Your task to perform on an android device: Search for macbook pro on newegg, select the first entry, add it to the cart, then select checkout. Image 0: 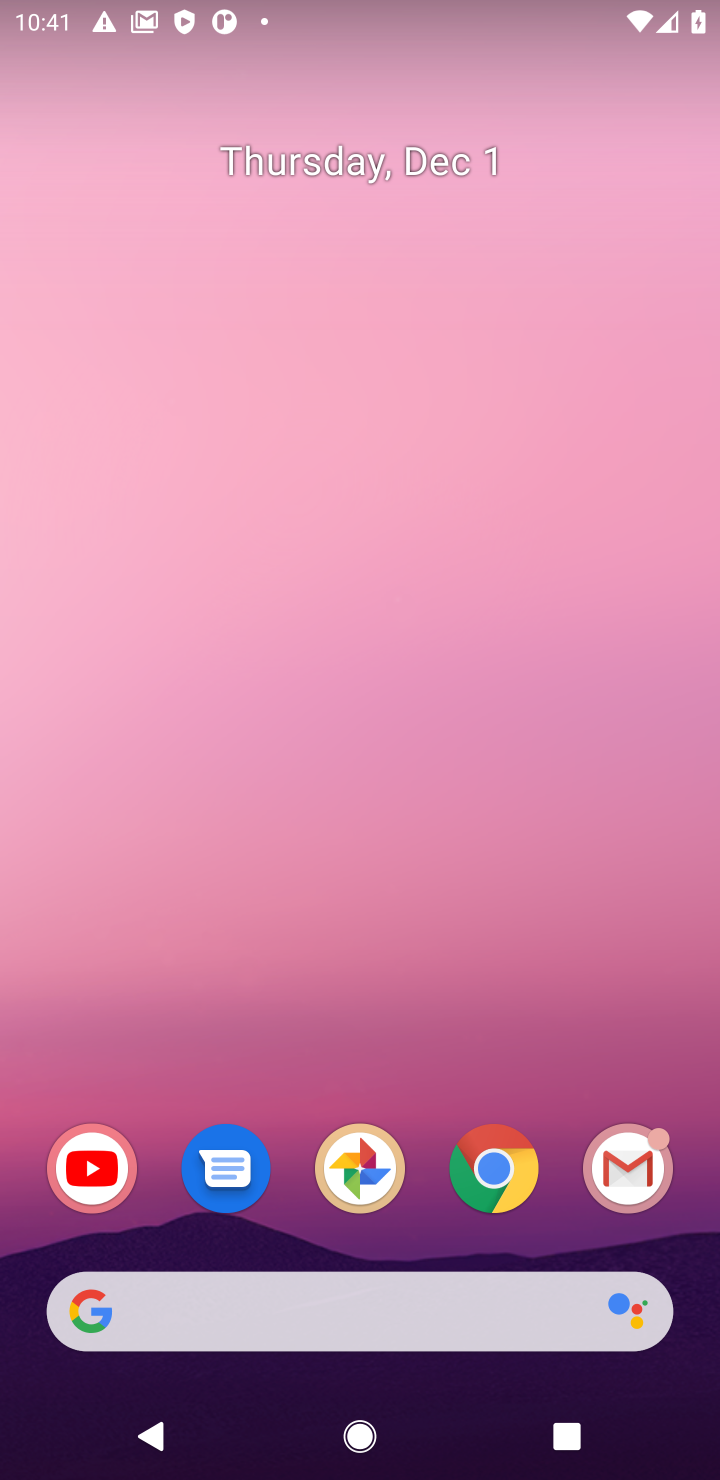
Step 0: click (498, 1170)
Your task to perform on an android device: Search for macbook pro on newegg, select the first entry, add it to the cart, then select checkout. Image 1: 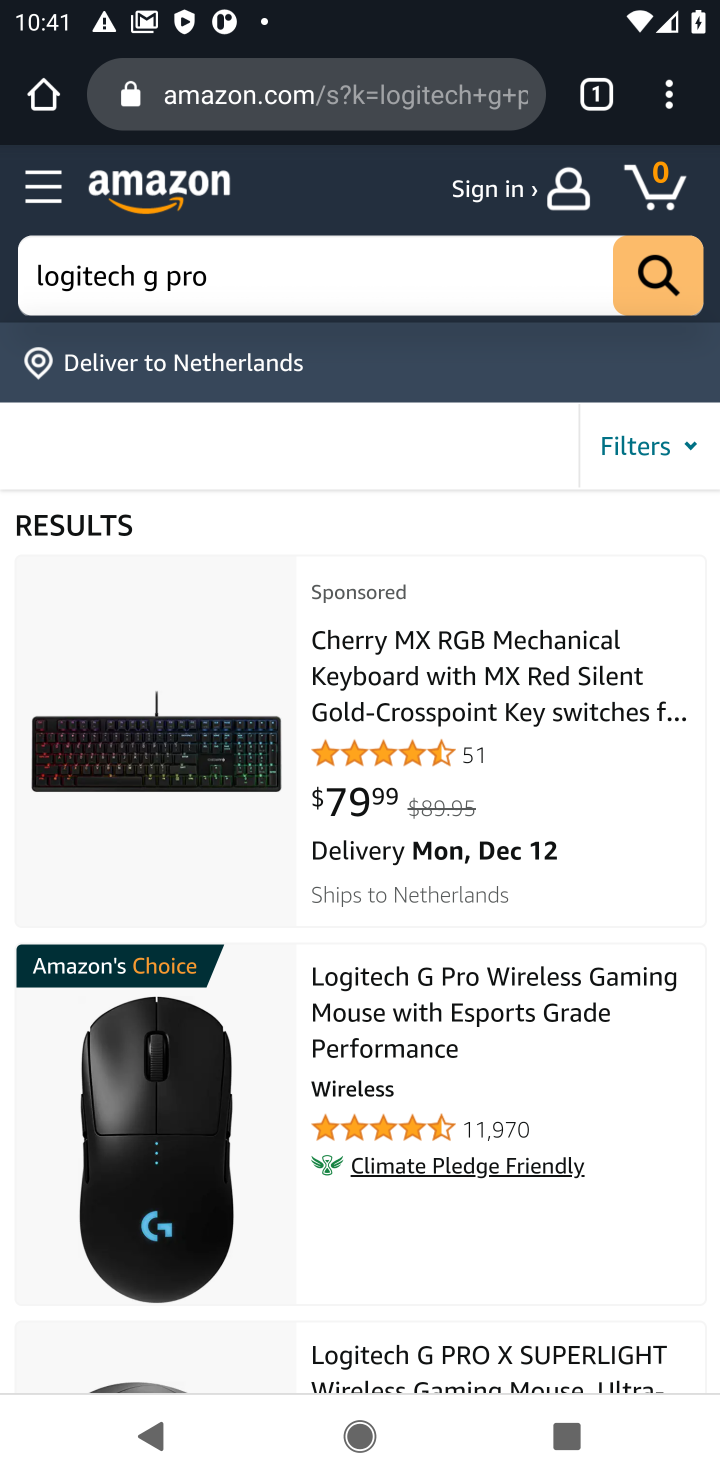
Step 1: click (265, 111)
Your task to perform on an android device: Search for macbook pro on newegg, select the first entry, add it to the cart, then select checkout. Image 2: 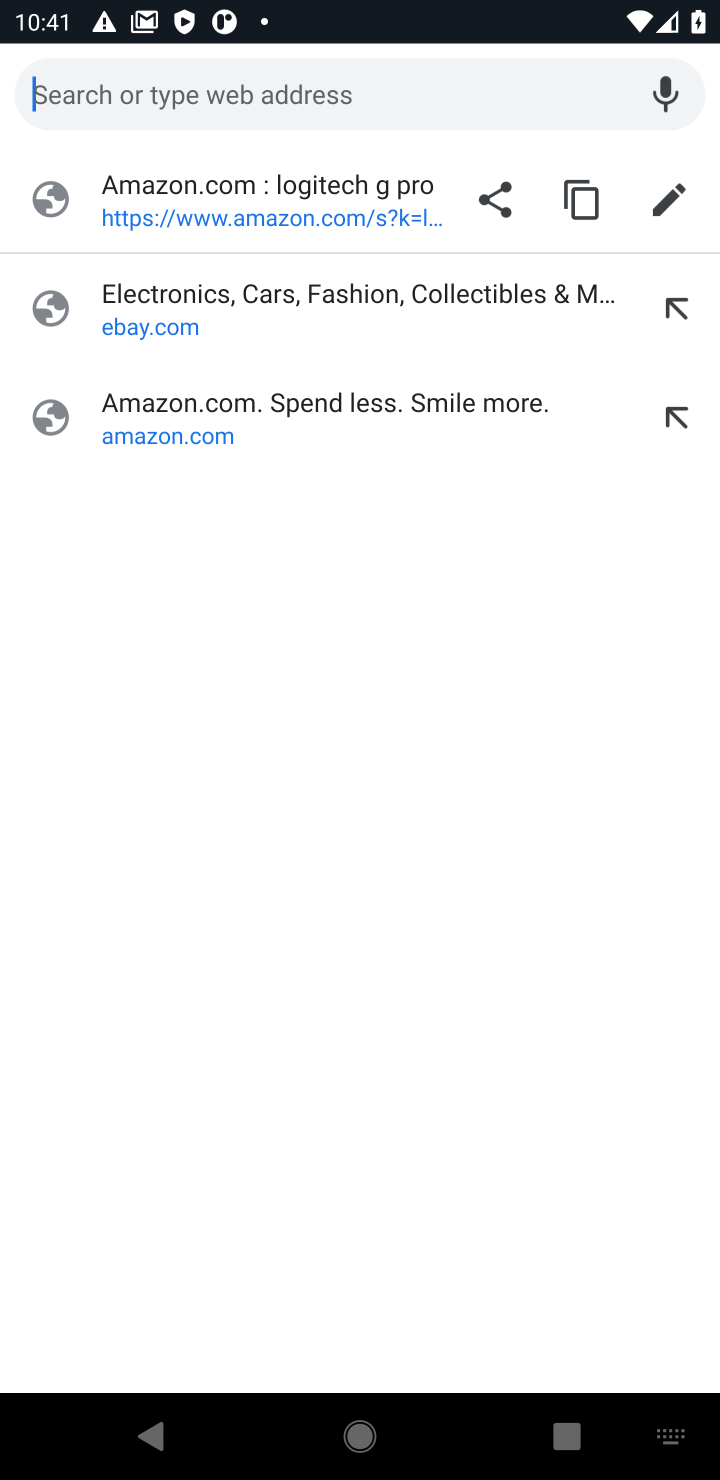
Step 2: type "newegg.com"
Your task to perform on an android device: Search for macbook pro on newegg, select the first entry, add it to the cart, then select checkout. Image 3: 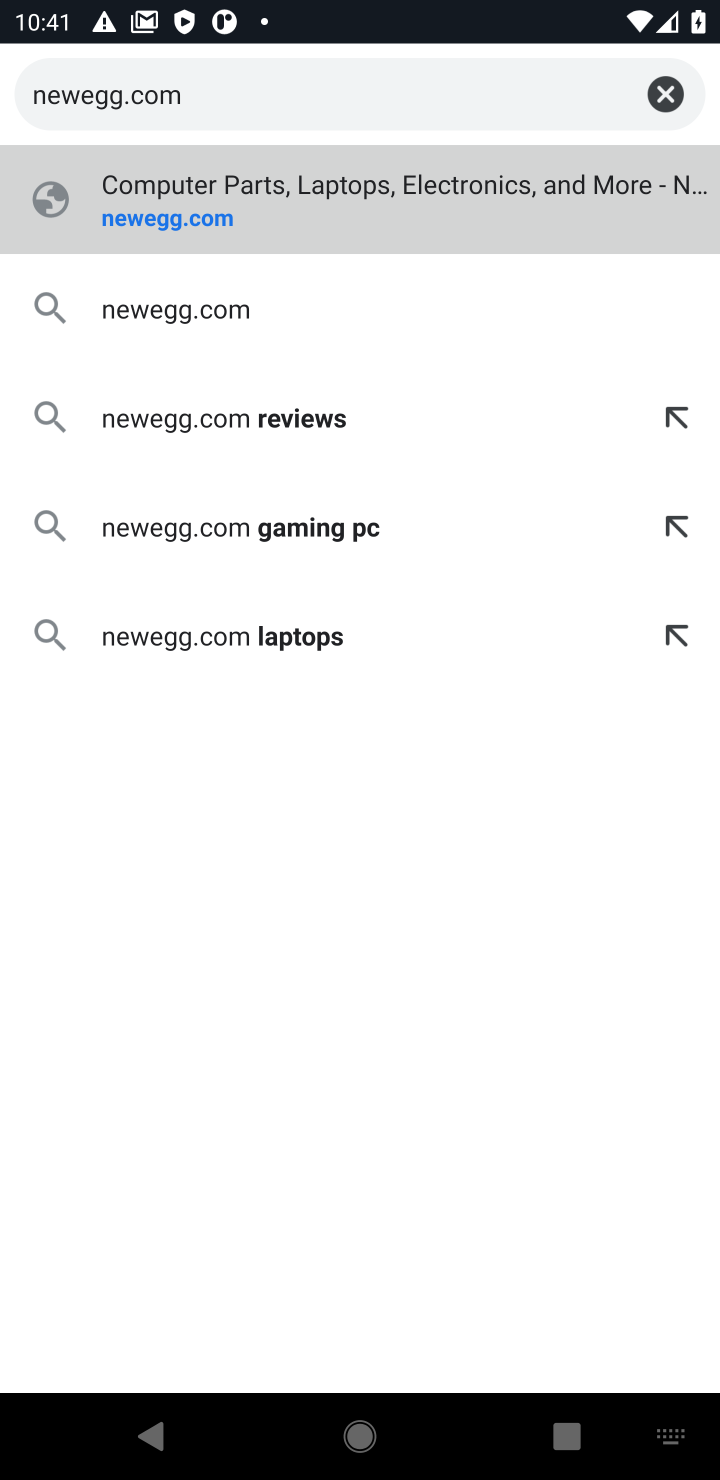
Step 3: click (145, 215)
Your task to perform on an android device: Search for macbook pro on newegg, select the first entry, add it to the cart, then select checkout. Image 4: 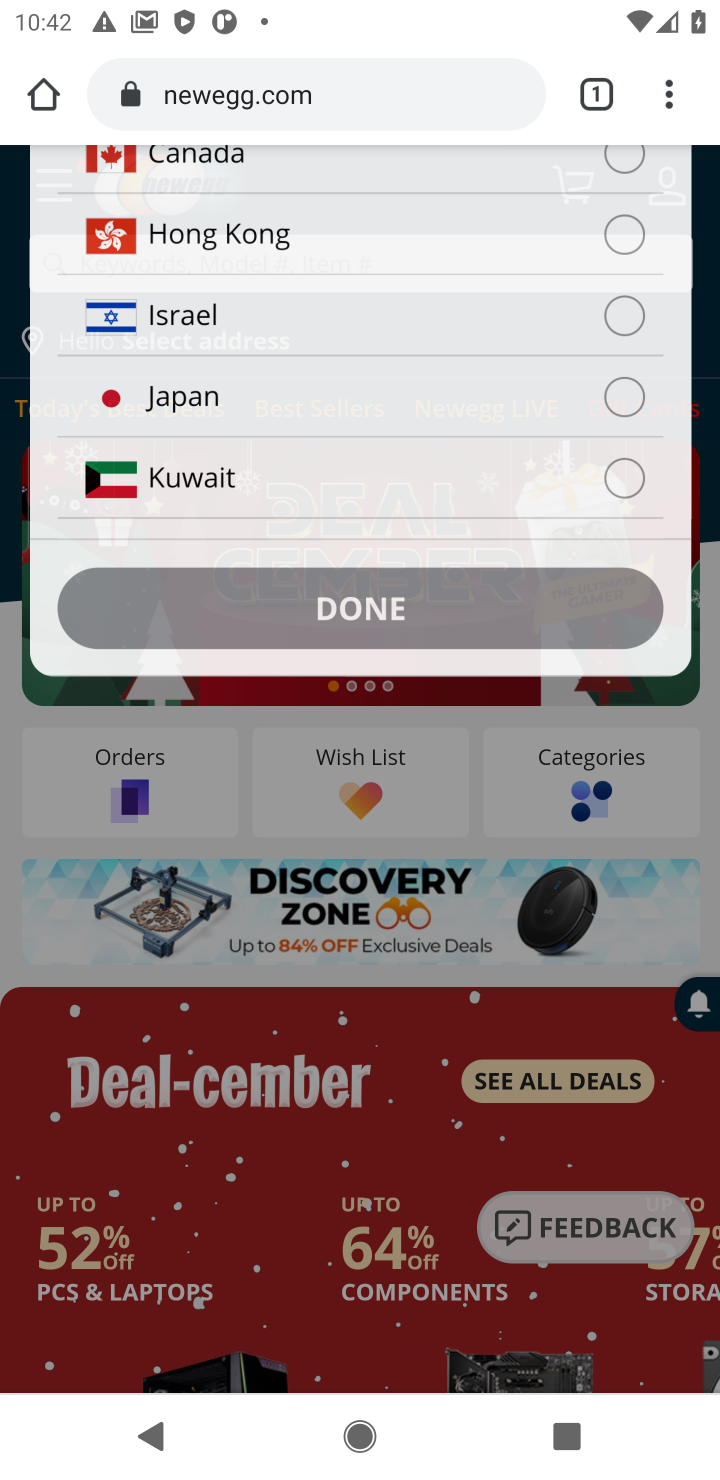
Step 4: click (162, 276)
Your task to perform on an android device: Search for macbook pro on newegg, select the first entry, add it to the cart, then select checkout. Image 5: 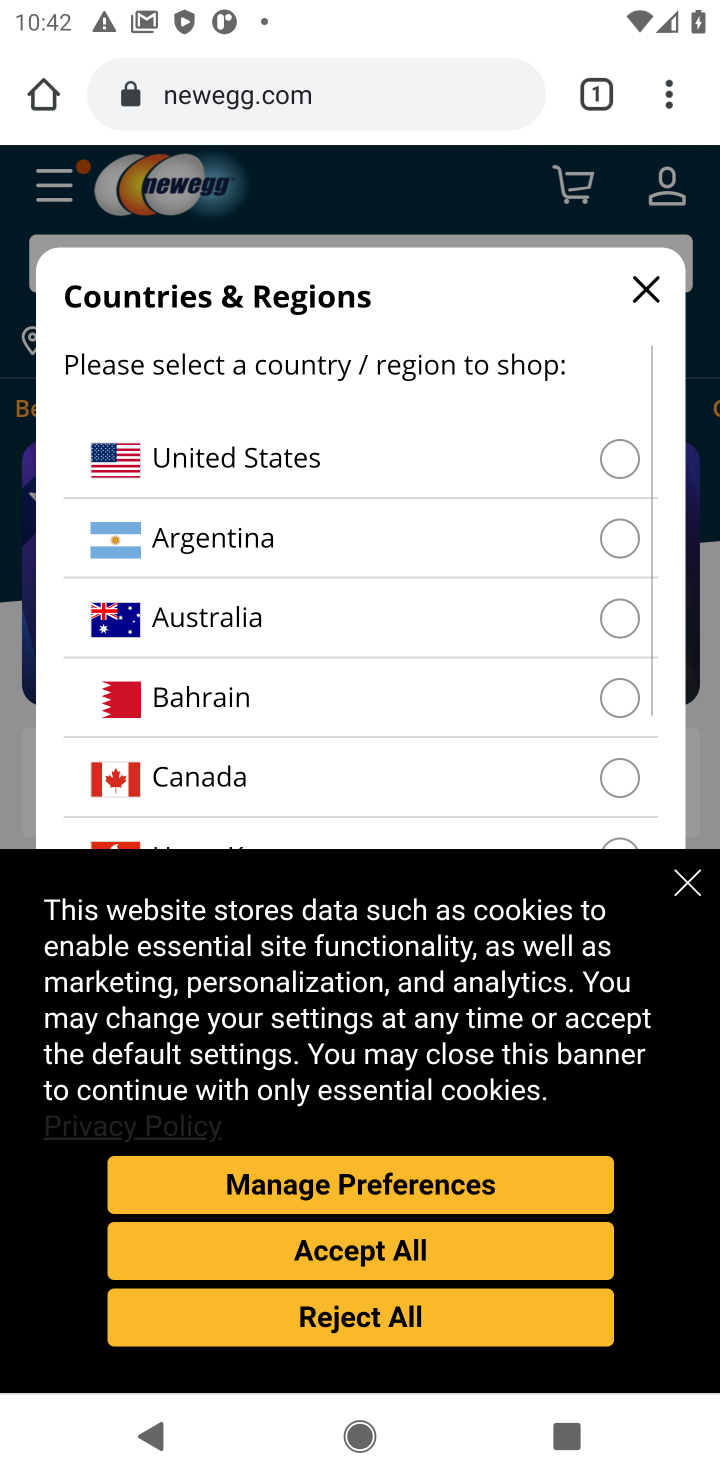
Step 5: click (161, 452)
Your task to perform on an android device: Search for macbook pro on newegg, select the first entry, add it to the cart, then select checkout. Image 6: 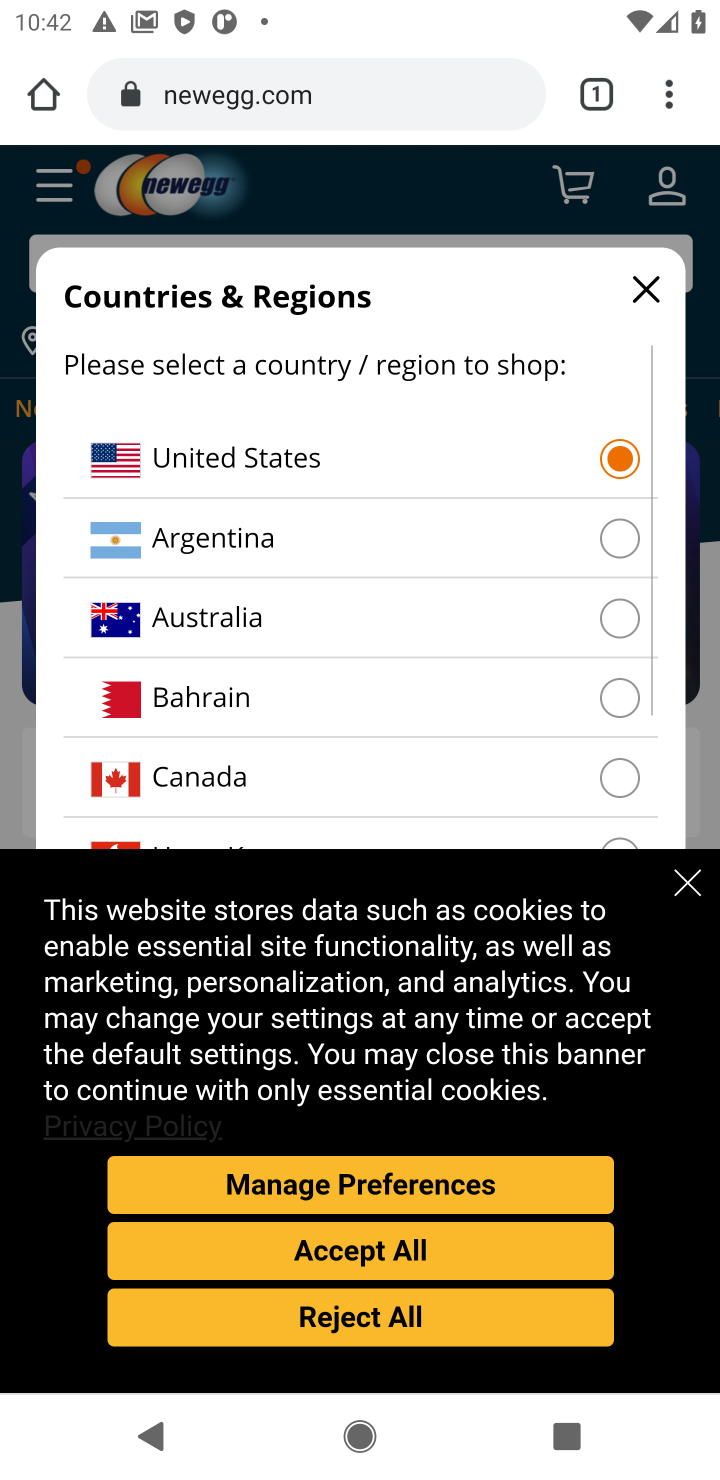
Step 6: click (684, 873)
Your task to perform on an android device: Search for macbook pro on newegg, select the first entry, add it to the cart, then select checkout. Image 7: 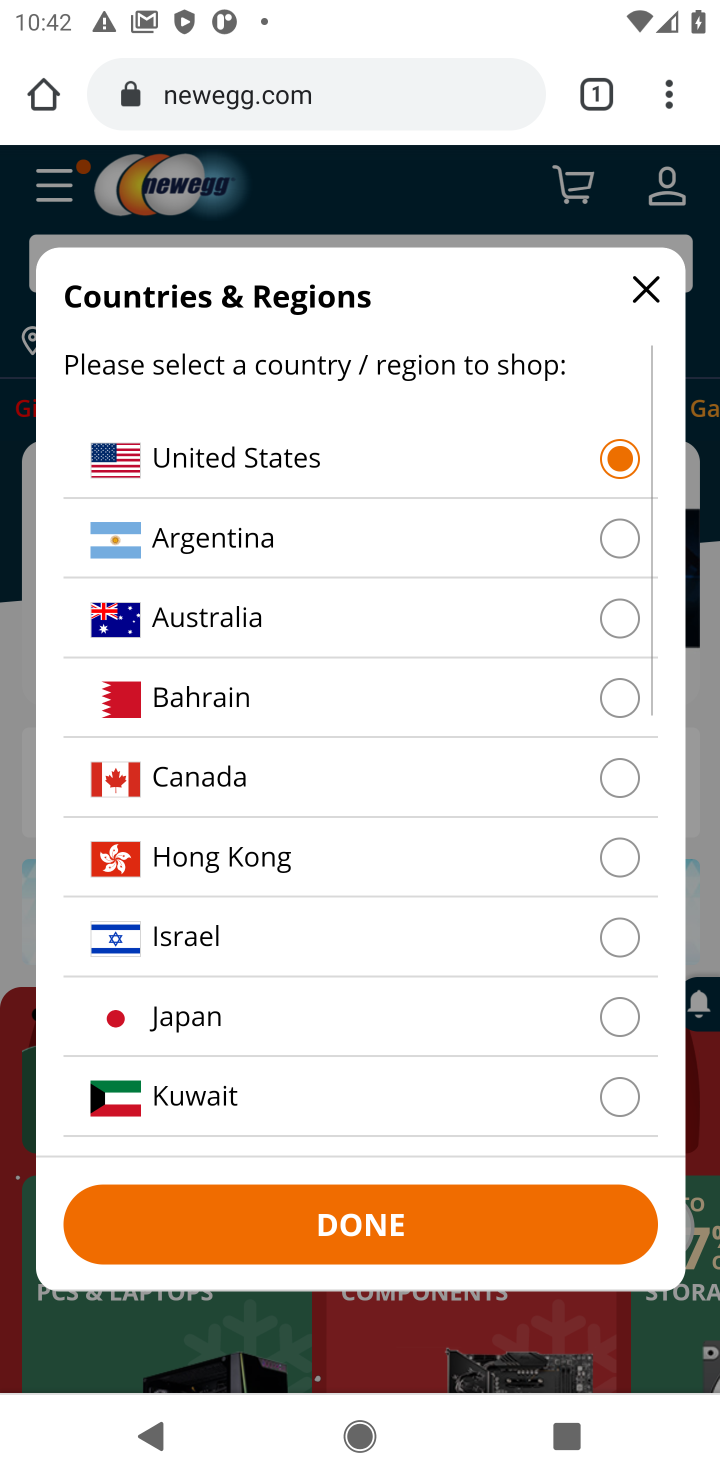
Step 7: click (361, 1209)
Your task to perform on an android device: Search for macbook pro on newegg, select the first entry, add it to the cart, then select checkout. Image 8: 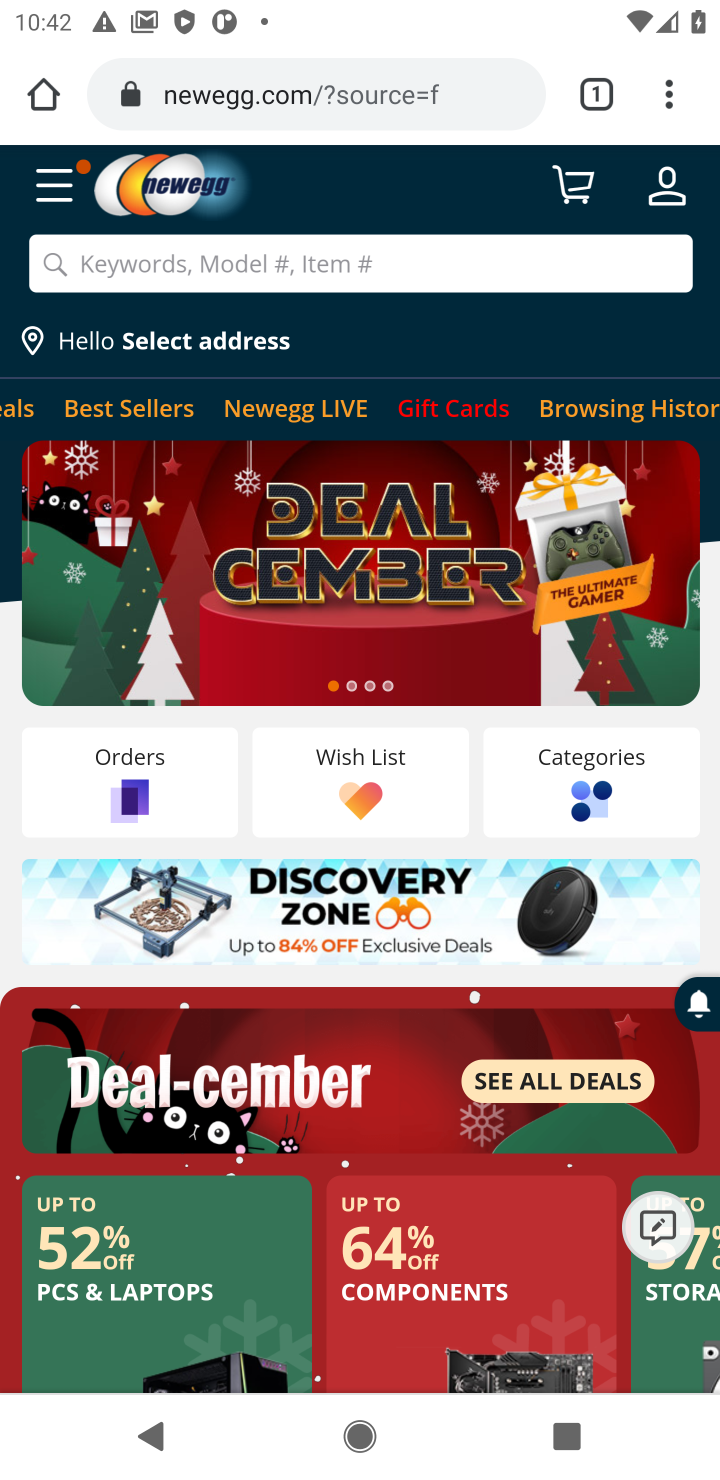
Step 8: click (225, 267)
Your task to perform on an android device: Search for macbook pro on newegg, select the first entry, add it to the cart, then select checkout. Image 9: 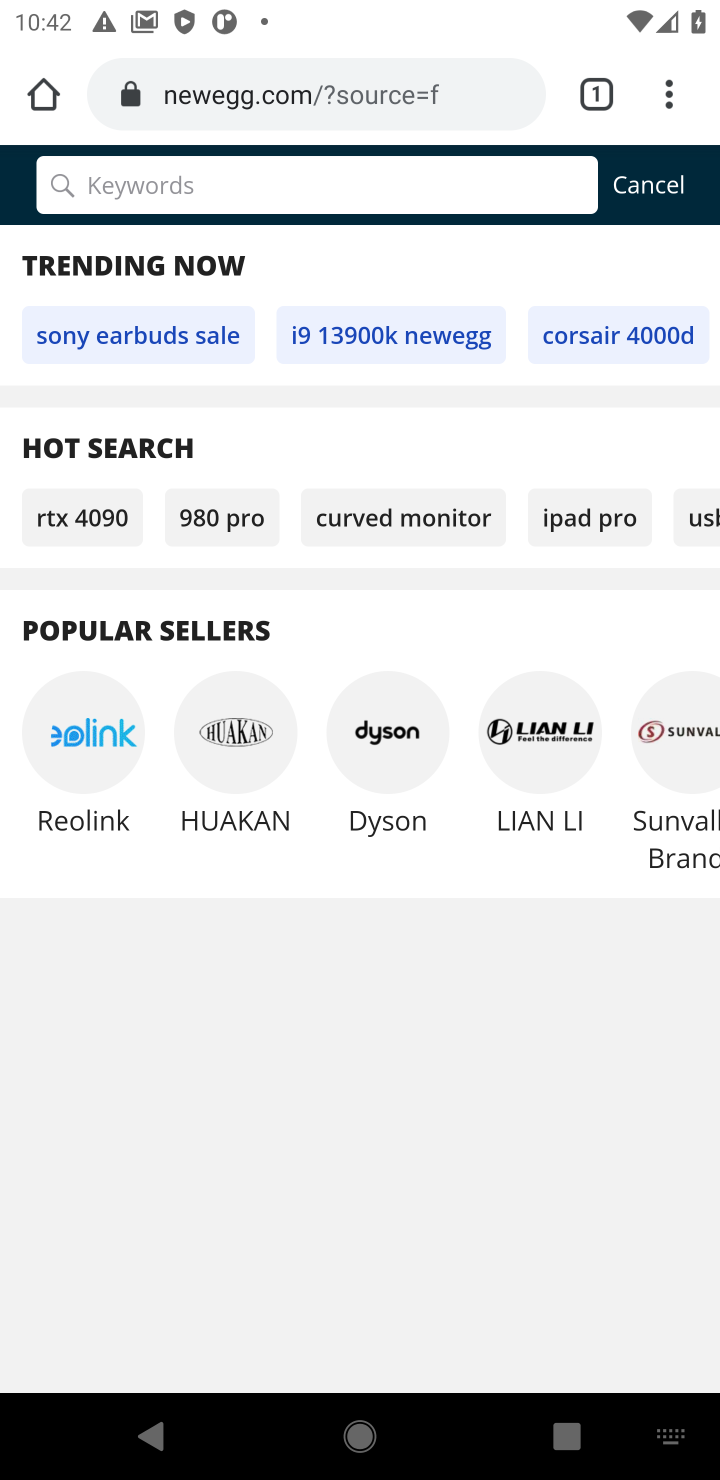
Step 9: type "macbook pro"
Your task to perform on an android device: Search for macbook pro on newegg, select the first entry, add it to the cart, then select checkout. Image 10: 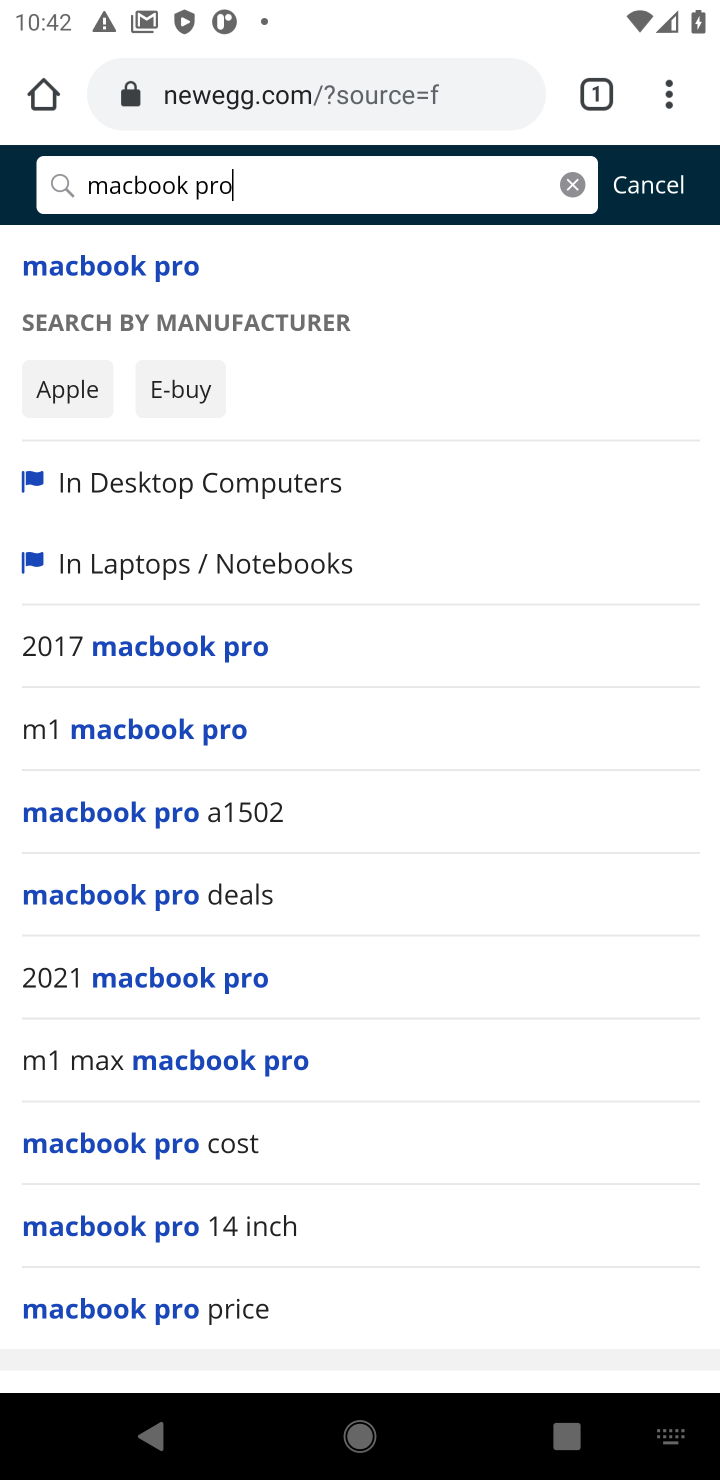
Step 10: click (162, 256)
Your task to perform on an android device: Search for macbook pro on newegg, select the first entry, add it to the cart, then select checkout. Image 11: 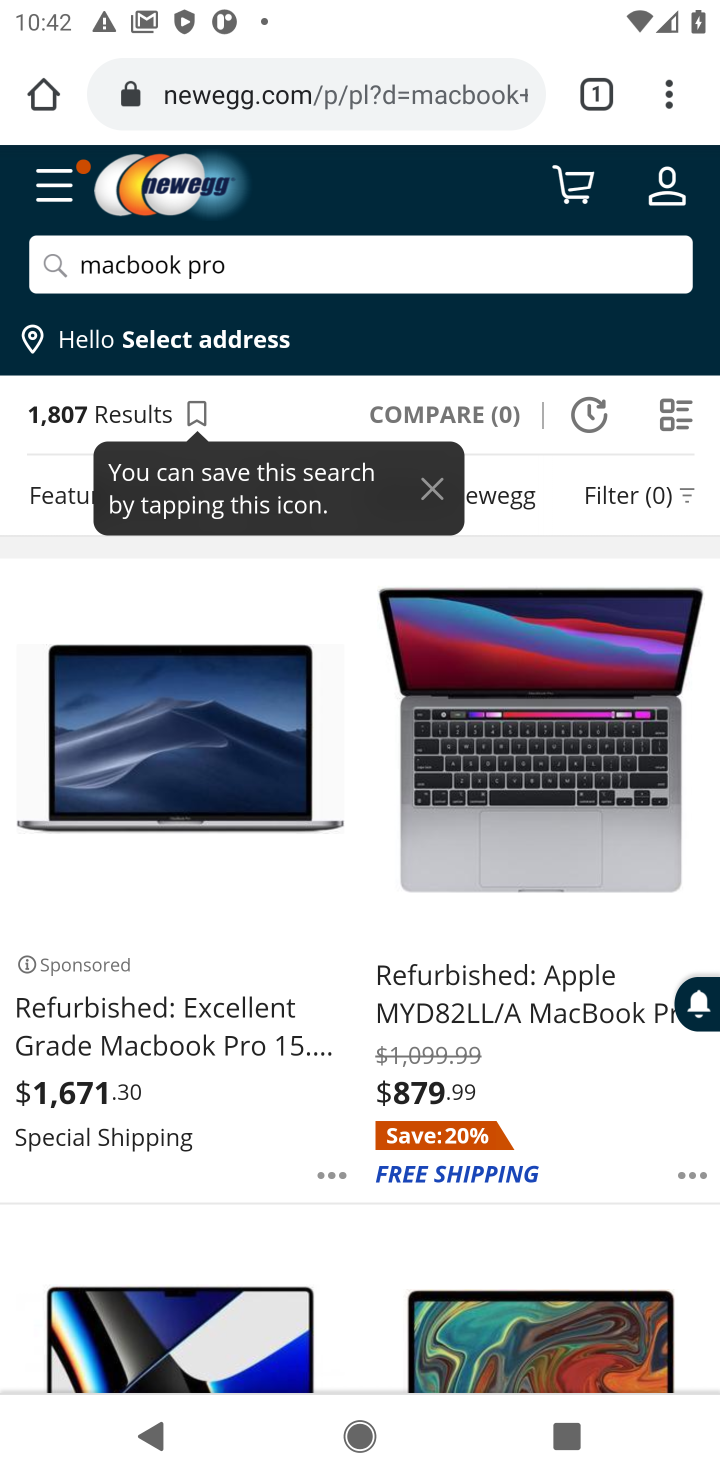
Step 11: click (113, 992)
Your task to perform on an android device: Search for macbook pro on newegg, select the first entry, add it to the cart, then select checkout. Image 12: 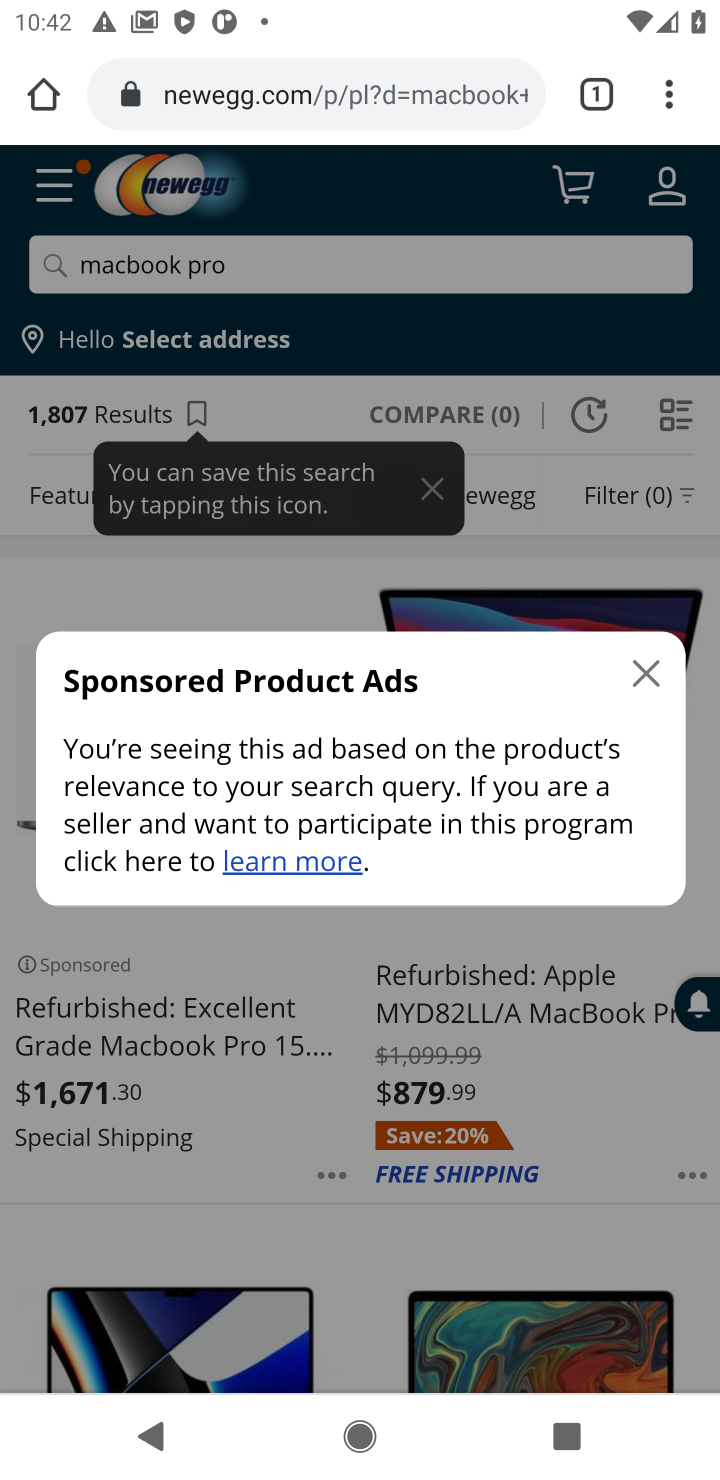
Step 12: click (638, 665)
Your task to perform on an android device: Search for macbook pro on newegg, select the first entry, add it to the cart, then select checkout. Image 13: 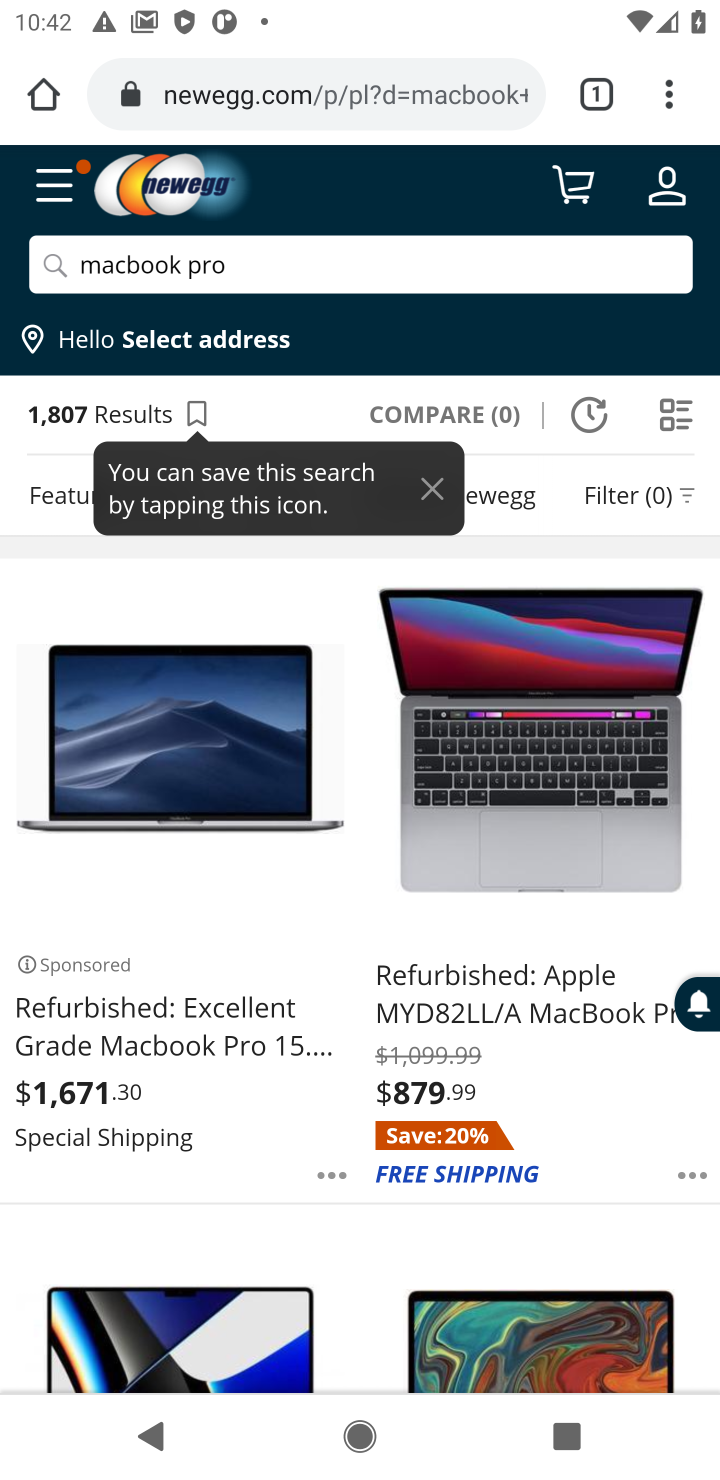
Step 13: click (168, 1004)
Your task to perform on an android device: Search for macbook pro on newegg, select the first entry, add it to the cart, then select checkout. Image 14: 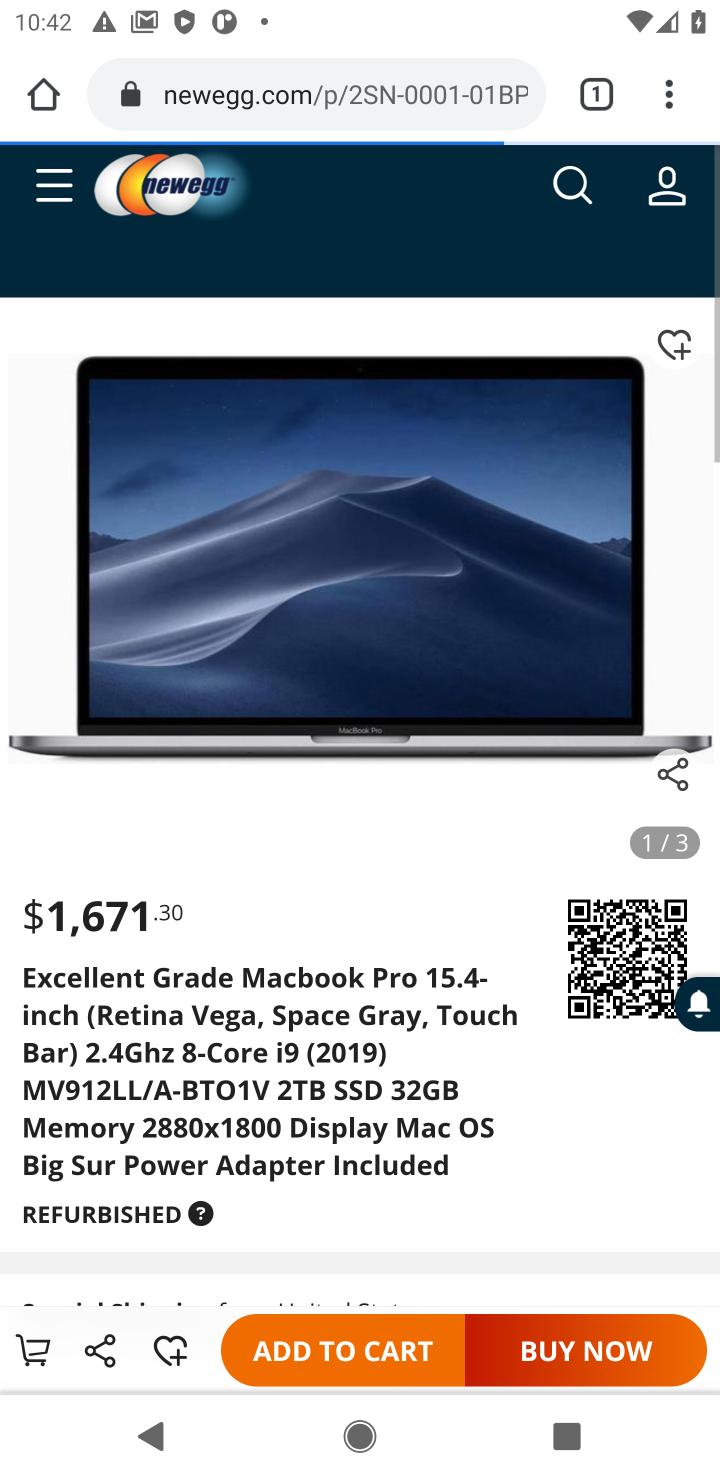
Step 14: click (170, 1023)
Your task to perform on an android device: Search for macbook pro on newegg, select the first entry, add it to the cart, then select checkout. Image 15: 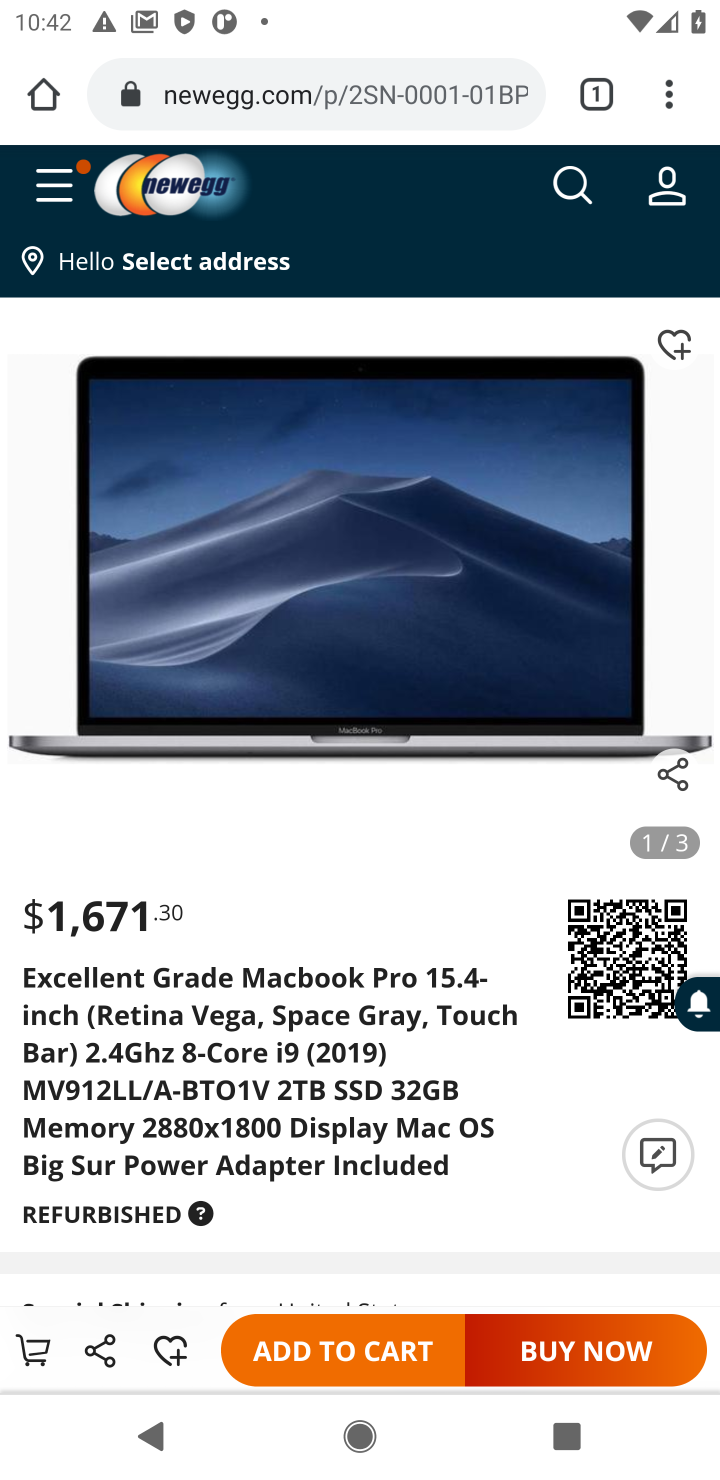
Step 15: click (357, 1352)
Your task to perform on an android device: Search for macbook pro on newegg, select the first entry, add it to the cart, then select checkout. Image 16: 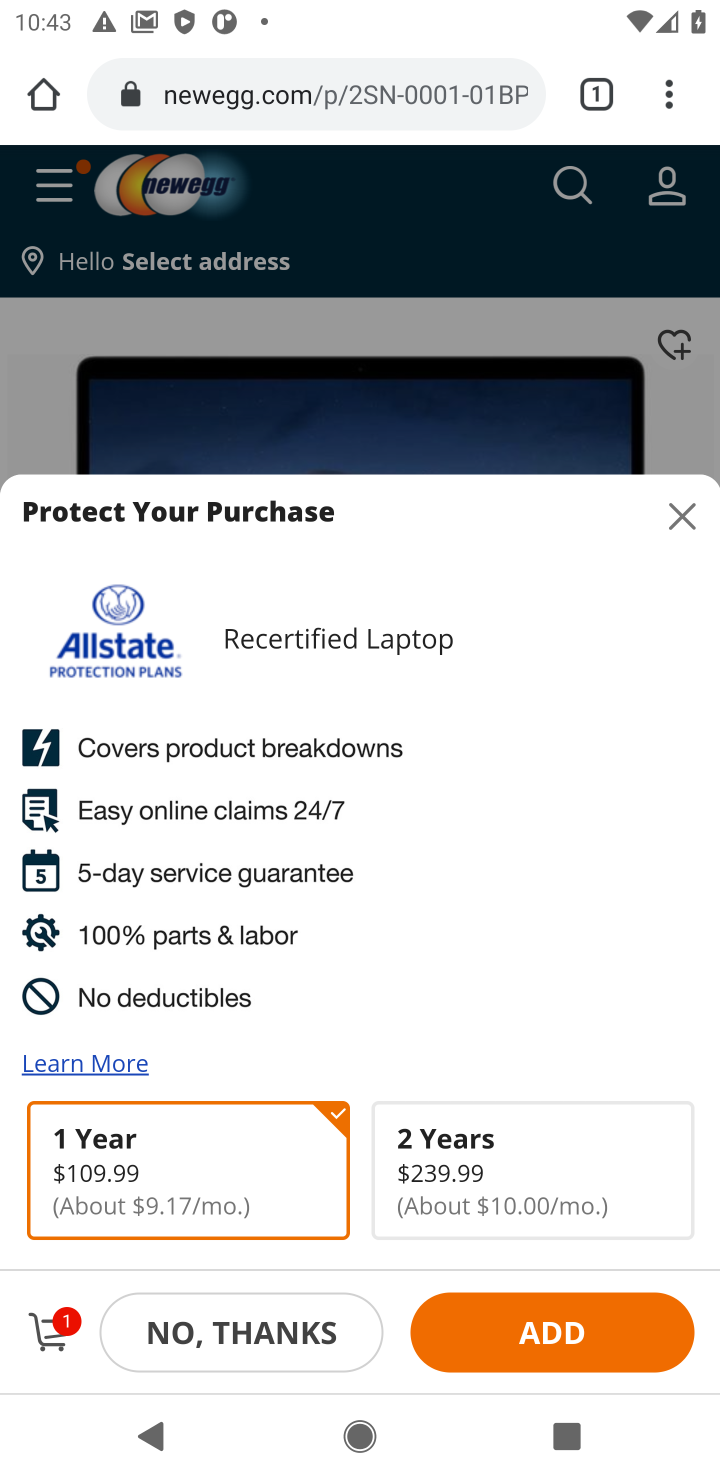
Step 16: click (43, 1335)
Your task to perform on an android device: Search for macbook pro on newegg, select the first entry, add it to the cart, then select checkout. Image 17: 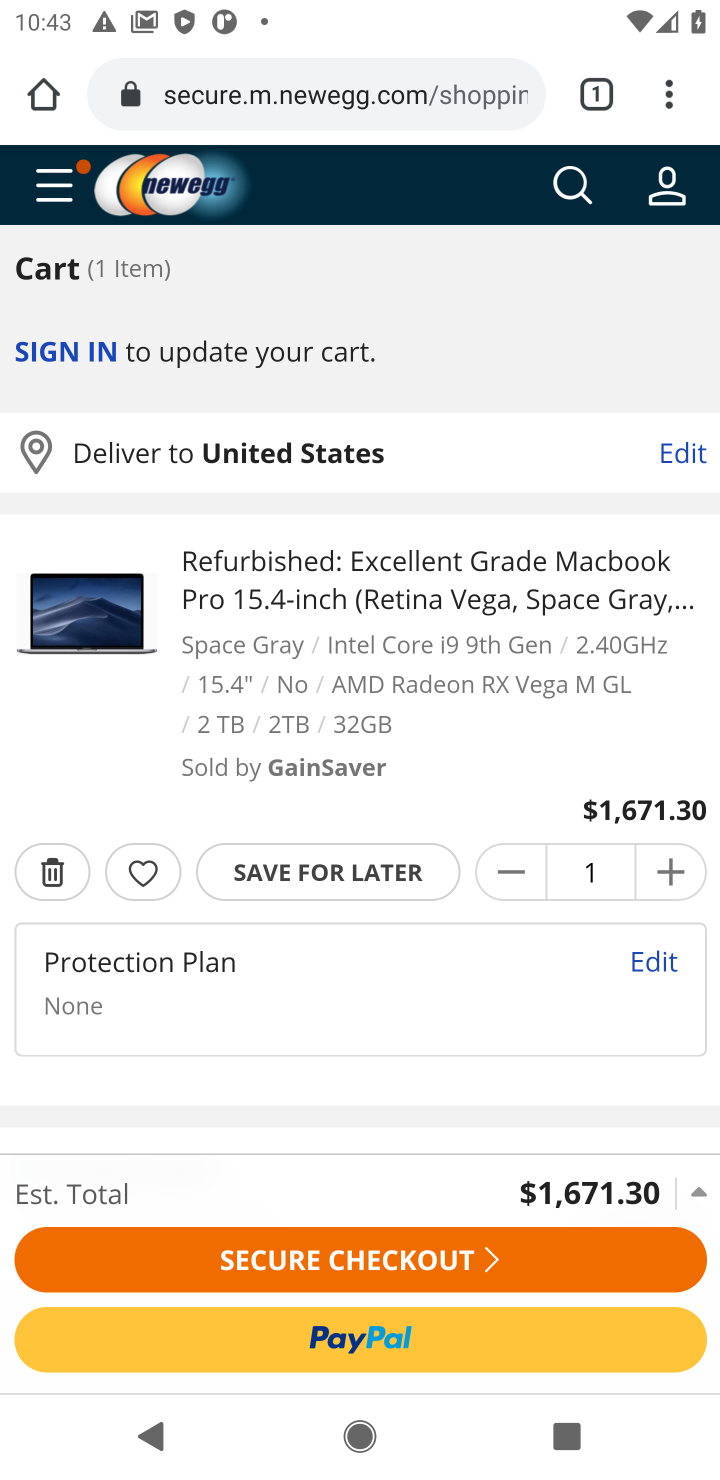
Step 17: click (188, 1326)
Your task to perform on an android device: Search for macbook pro on newegg, select the first entry, add it to the cart, then select checkout. Image 18: 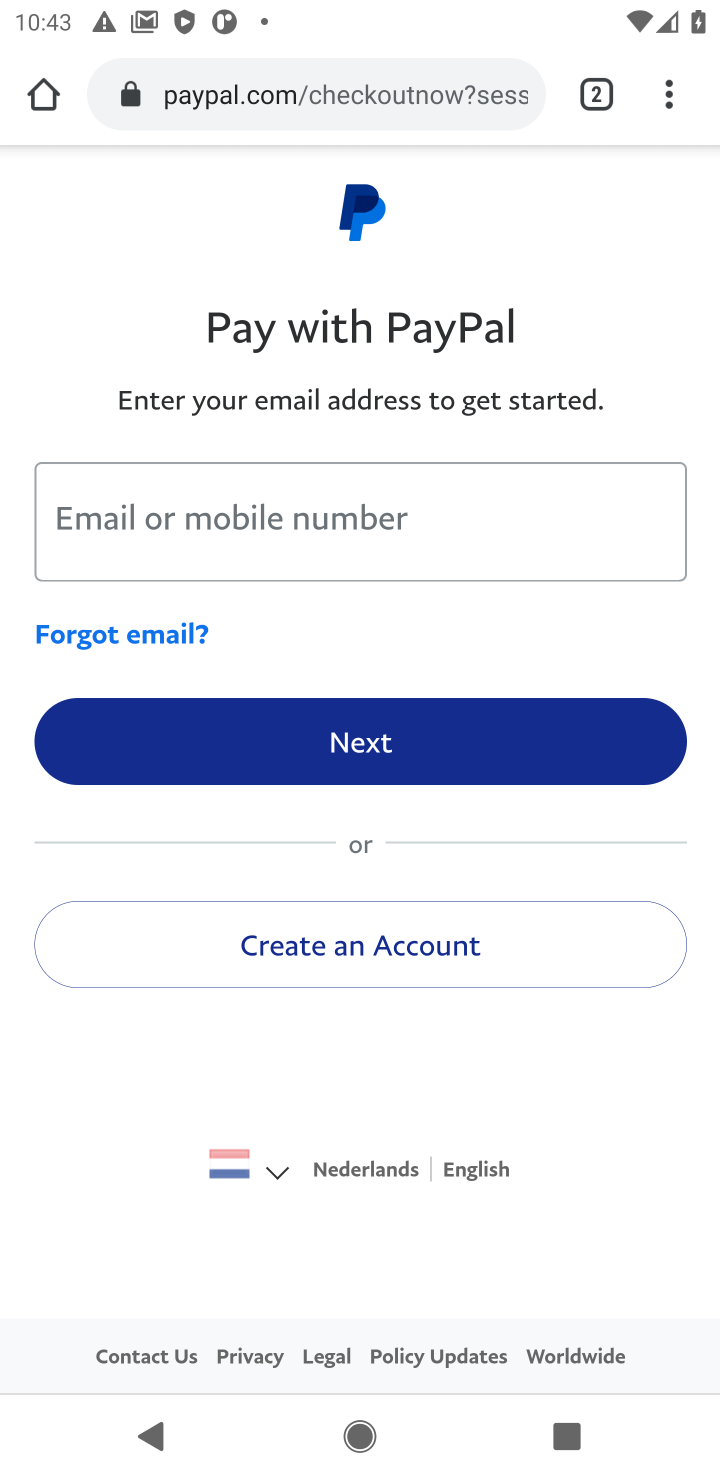
Step 18: task complete